Your task to perform on an android device: Open Google Chrome Image 0: 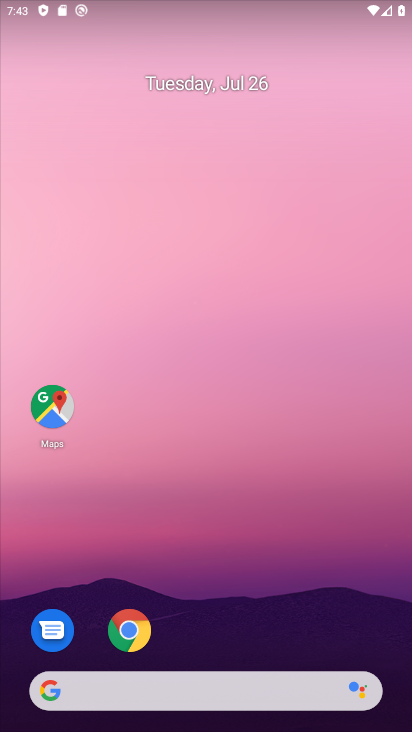
Step 0: click (128, 630)
Your task to perform on an android device: Open Google Chrome Image 1: 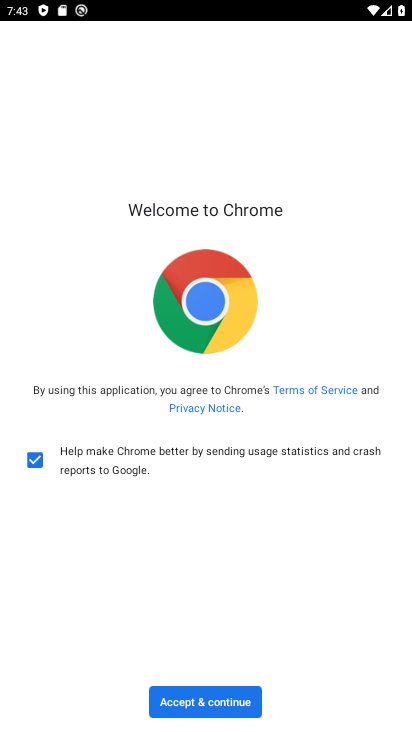
Step 1: click (191, 700)
Your task to perform on an android device: Open Google Chrome Image 2: 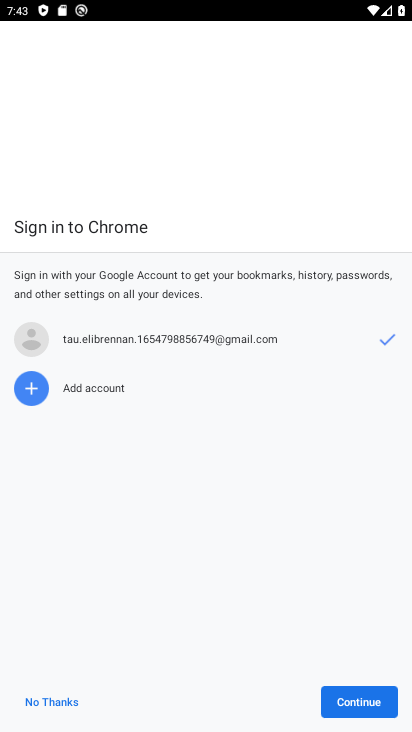
Step 2: click (349, 705)
Your task to perform on an android device: Open Google Chrome Image 3: 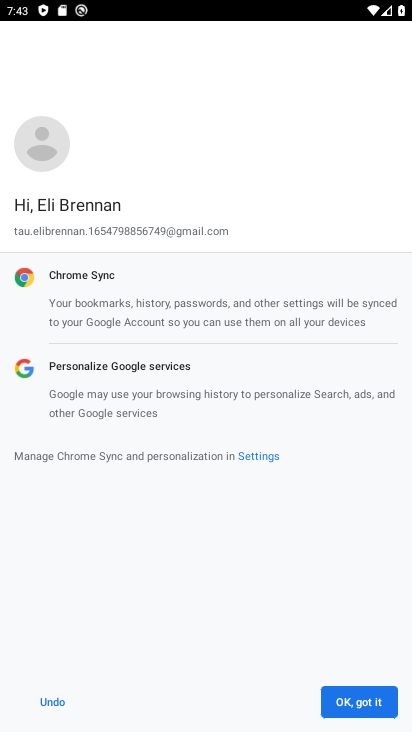
Step 3: click (349, 705)
Your task to perform on an android device: Open Google Chrome Image 4: 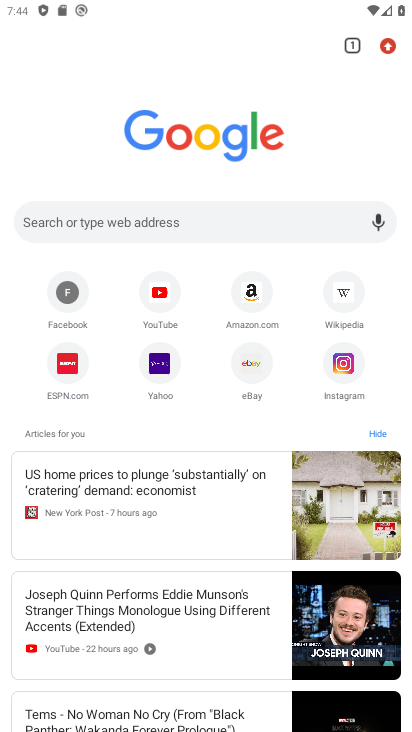
Step 4: task complete